Your task to perform on an android device: check battery use Image 0: 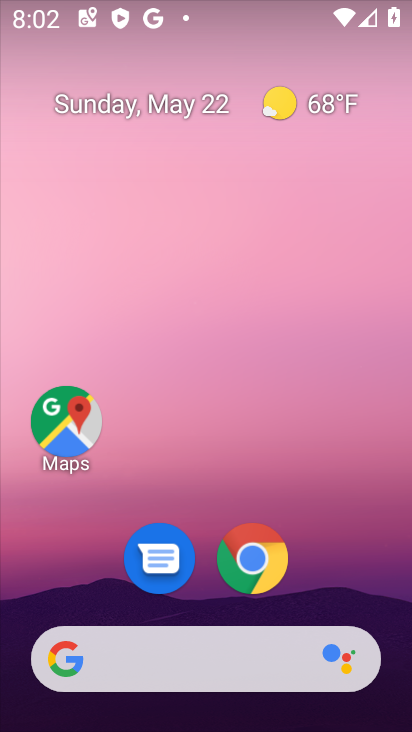
Step 0: drag from (292, 576) to (239, 204)
Your task to perform on an android device: check battery use Image 1: 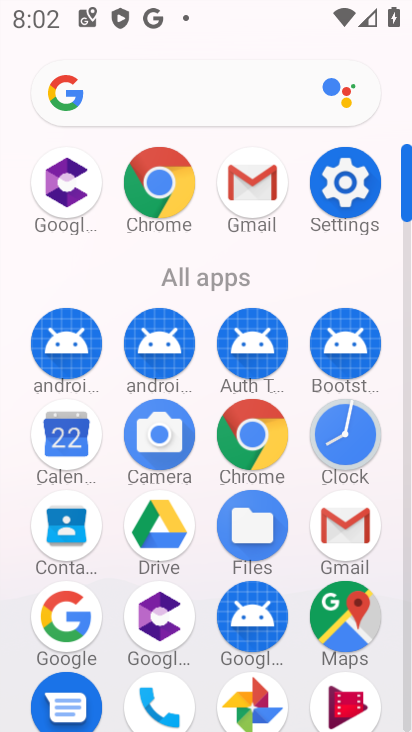
Step 1: click (361, 176)
Your task to perform on an android device: check battery use Image 2: 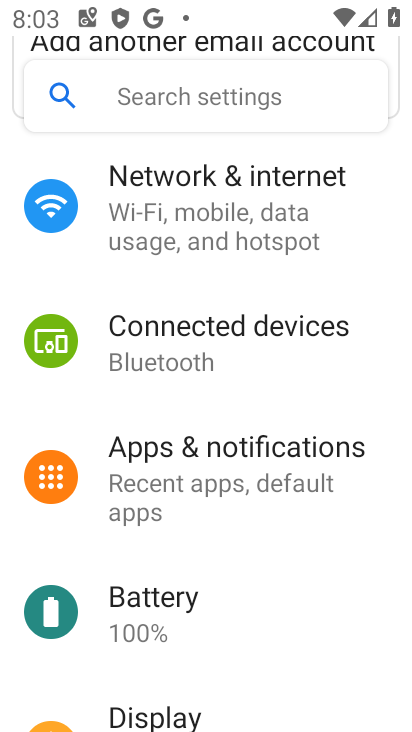
Step 2: drag from (276, 580) to (309, 227)
Your task to perform on an android device: check battery use Image 3: 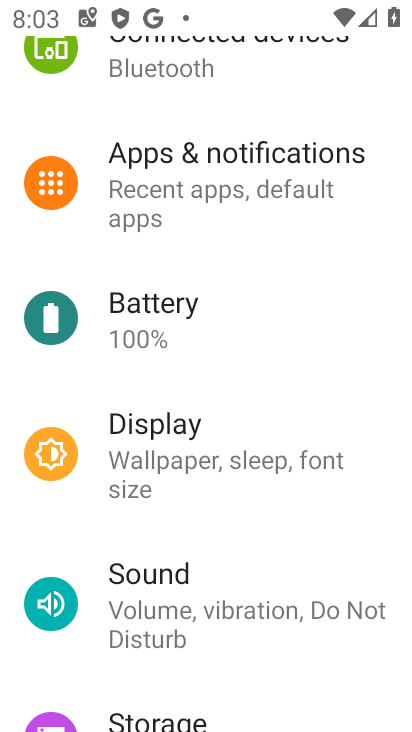
Step 3: click (203, 299)
Your task to perform on an android device: check battery use Image 4: 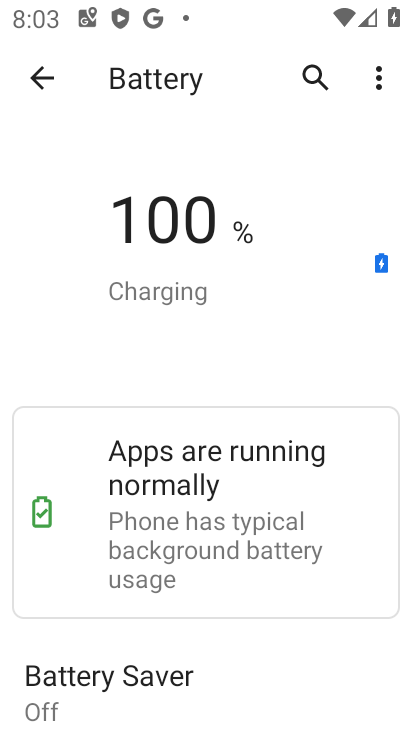
Step 4: task complete